Your task to perform on an android device: Open Chrome and go to settings Image 0: 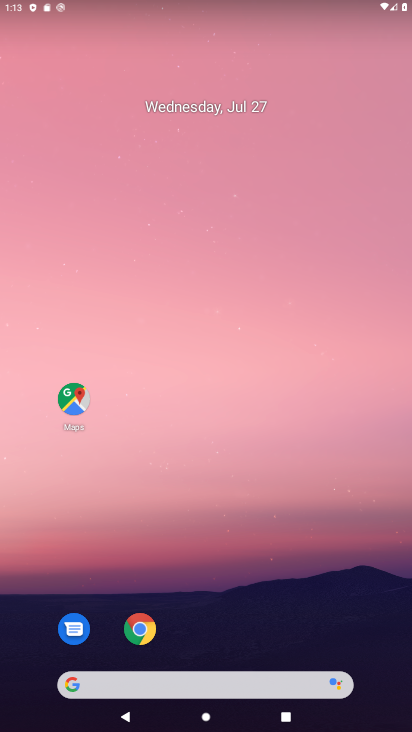
Step 0: press home button
Your task to perform on an android device: Open Chrome and go to settings Image 1: 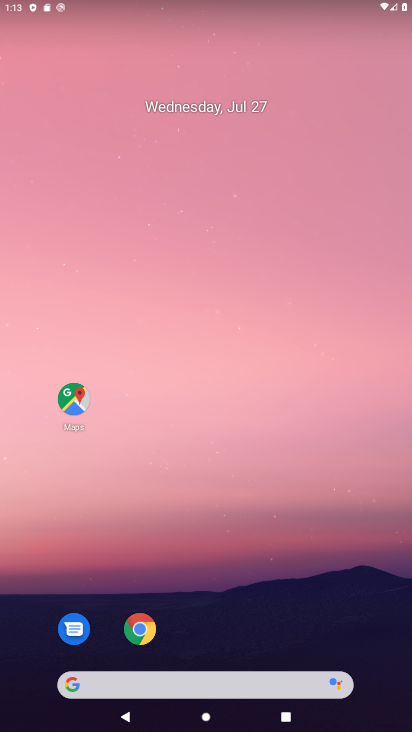
Step 1: press home button
Your task to perform on an android device: Open Chrome and go to settings Image 2: 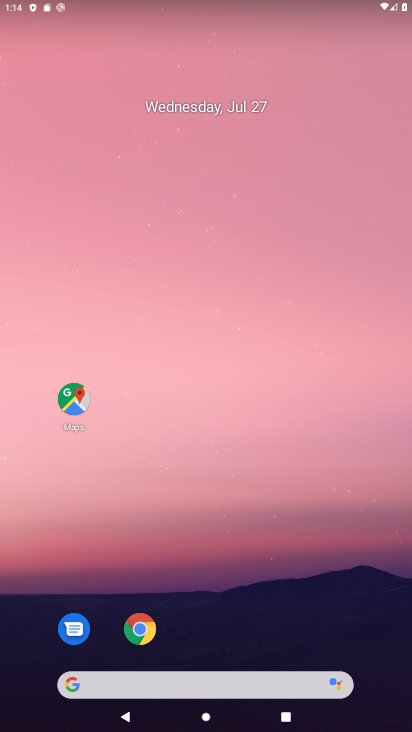
Step 2: drag from (217, 643) to (193, 10)
Your task to perform on an android device: Open Chrome and go to settings Image 3: 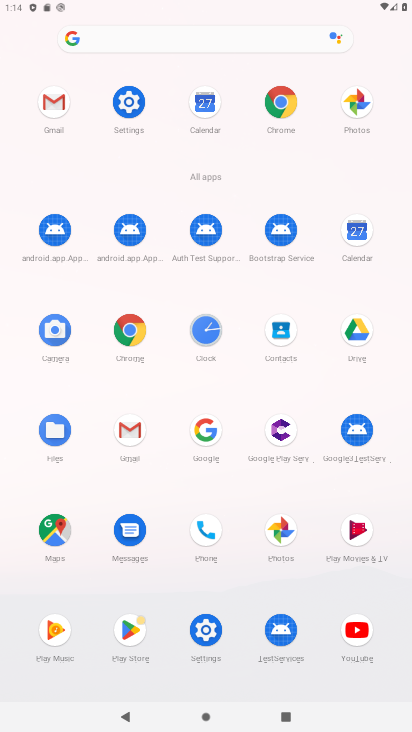
Step 3: click (278, 101)
Your task to perform on an android device: Open Chrome and go to settings Image 4: 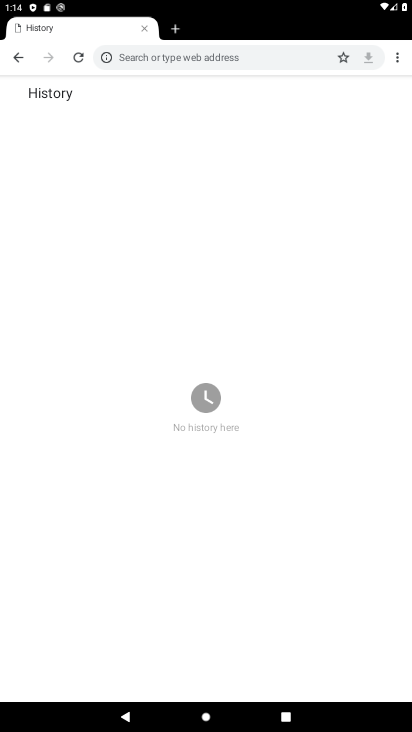
Step 4: task complete